Your task to perform on an android device: toggle sleep mode Image 0: 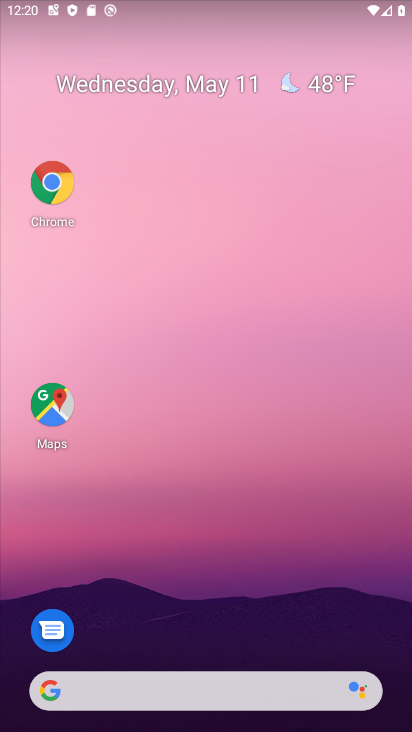
Step 0: drag from (190, 672) to (19, 12)
Your task to perform on an android device: toggle sleep mode Image 1: 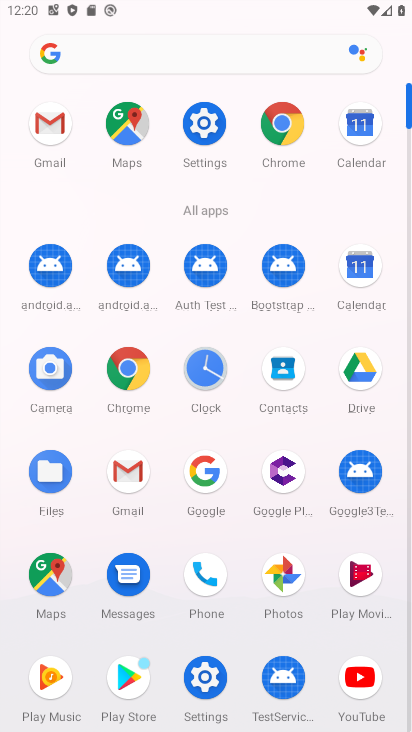
Step 1: click (211, 124)
Your task to perform on an android device: toggle sleep mode Image 2: 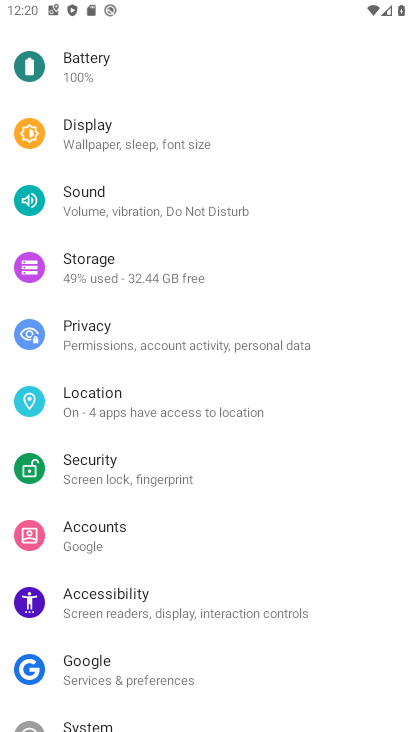
Step 2: click (133, 151)
Your task to perform on an android device: toggle sleep mode Image 3: 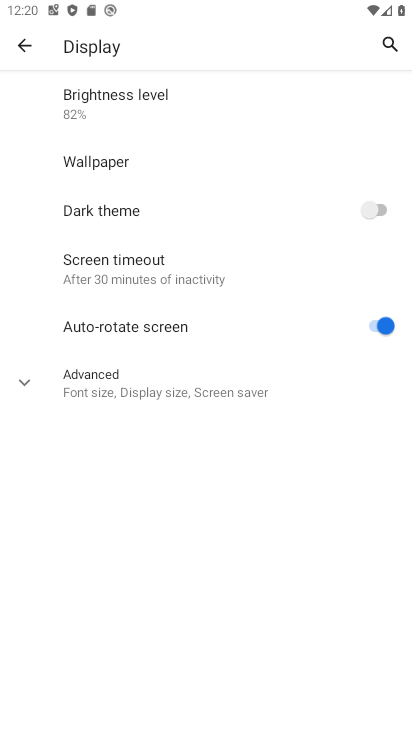
Step 3: click (98, 393)
Your task to perform on an android device: toggle sleep mode Image 4: 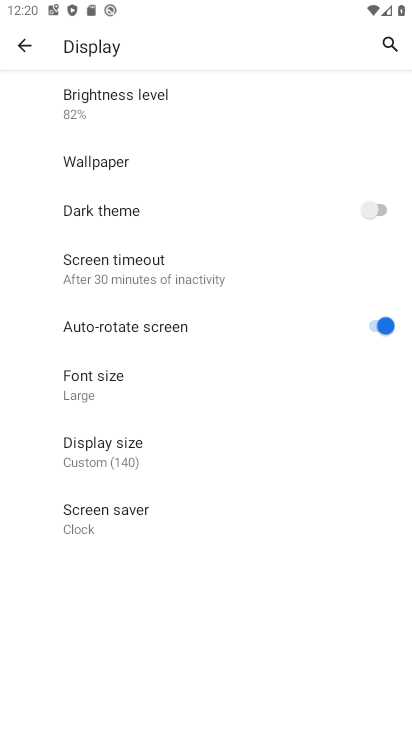
Step 4: task complete